Your task to perform on an android device: create a new album in the google photos Image 0: 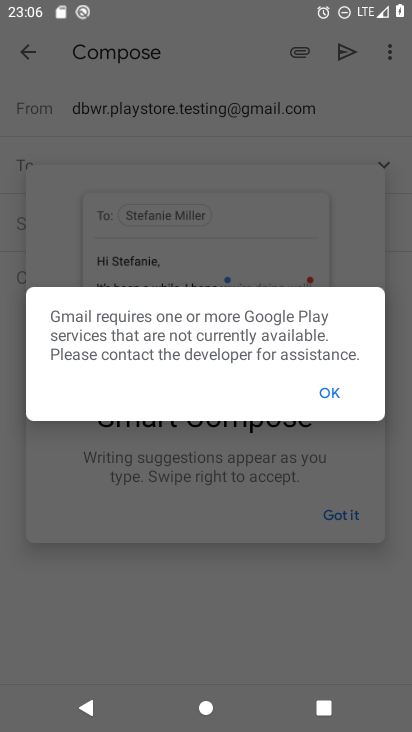
Step 0: press home button
Your task to perform on an android device: create a new album in the google photos Image 1: 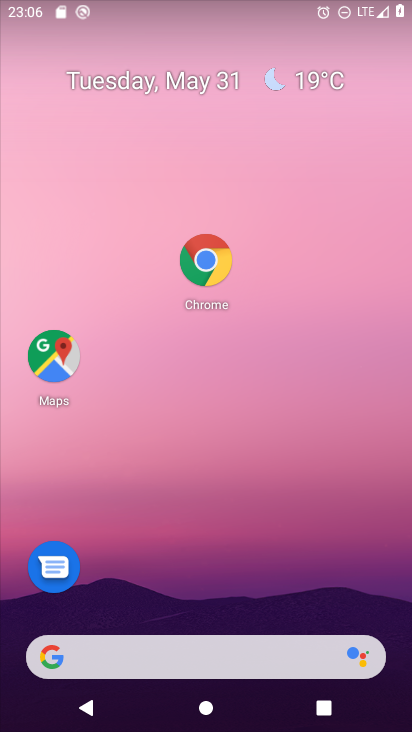
Step 1: drag from (164, 625) to (204, 246)
Your task to perform on an android device: create a new album in the google photos Image 2: 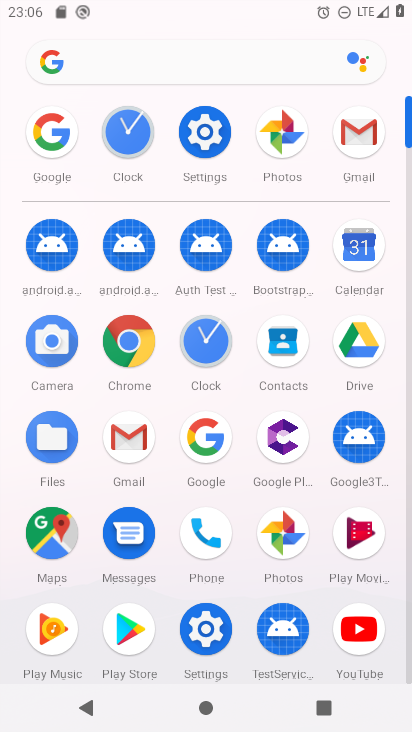
Step 2: click (287, 533)
Your task to perform on an android device: create a new album in the google photos Image 3: 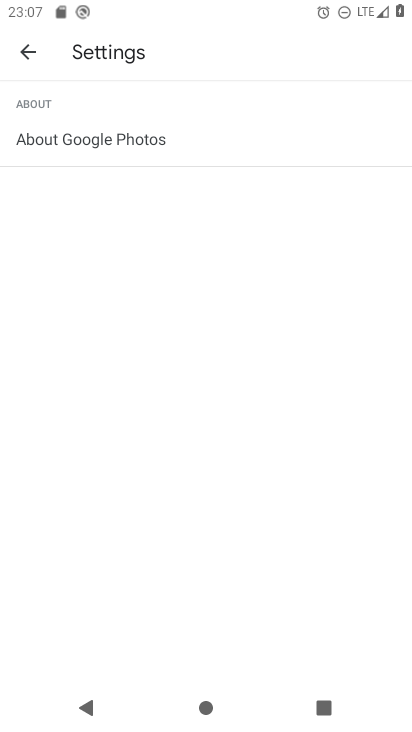
Step 3: click (28, 59)
Your task to perform on an android device: create a new album in the google photos Image 4: 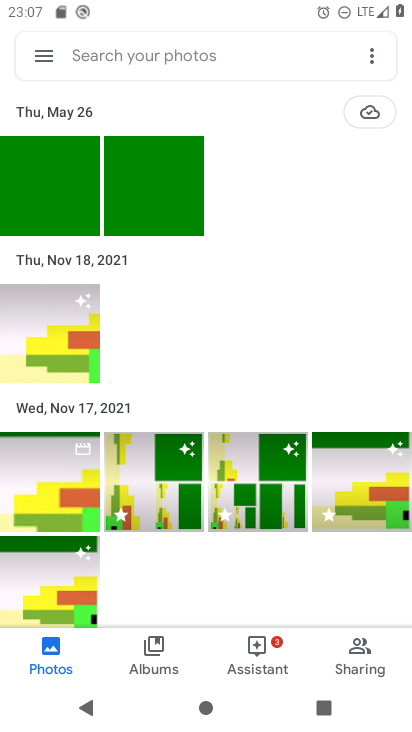
Step 4: click (158, 662)
Your task to perform on an android device: create a new album in the google photos Image 5: 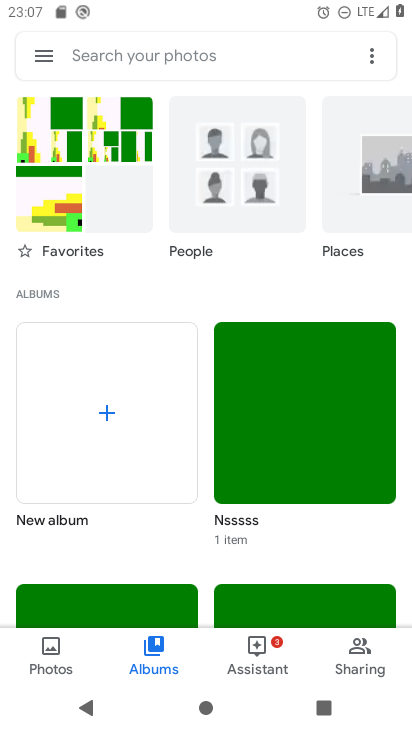
Step 5: click (126, 399)
Your task to perform on an android device: create a new album in the google photos Image 6: 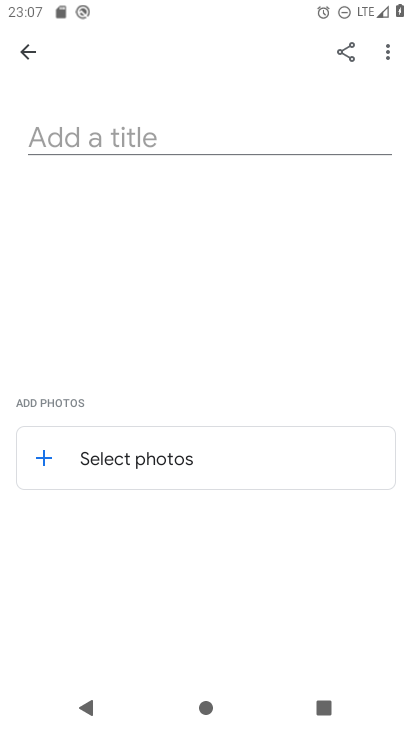
Step 6: type "lipi album"
Your task to perform on an android device: create a new album in the google photos Image 7: 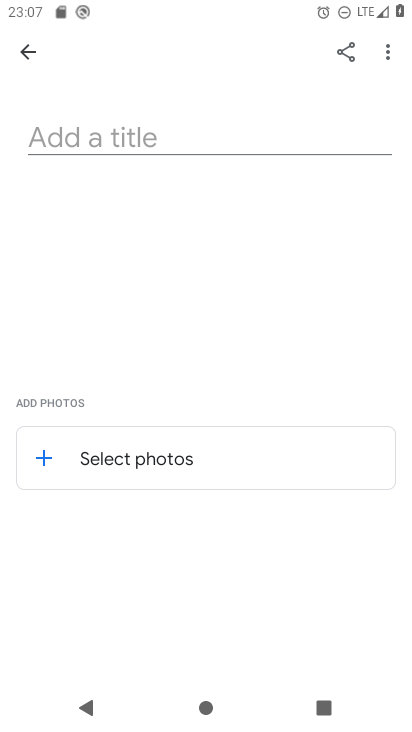
Step 7: click (83, 134)
Your task to perform on an android device: create a new album in the google photos Image 8: 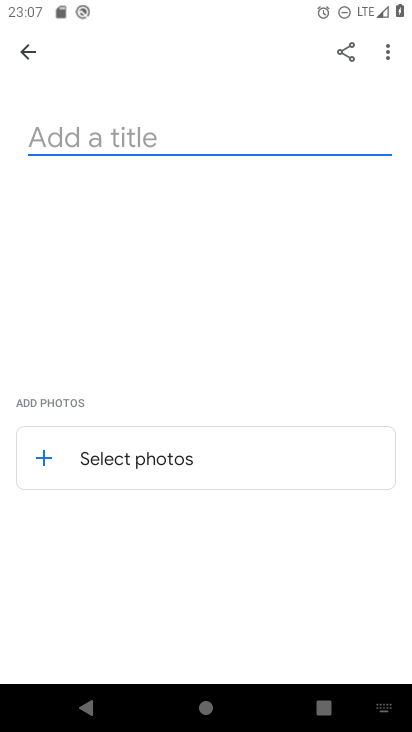
Step 8: type "lipi album"
Your task to perform on an android device: create a new album in the google photos Image 9: 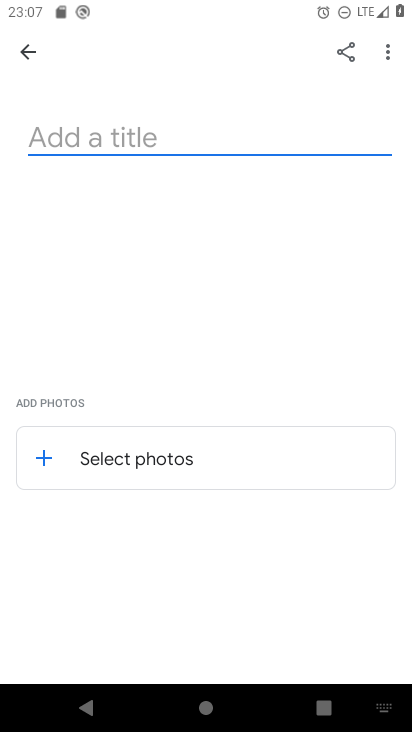
Step 9: click (92, 459)
Your task to perform on an android device: create a new album in the google photos Image 10: 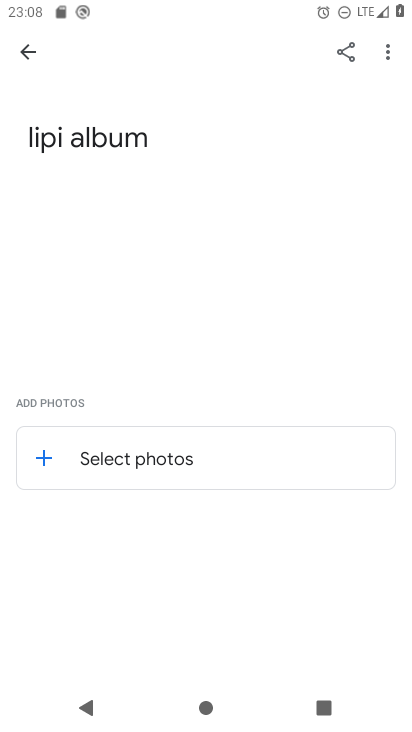
Step 10: click (90, 459)
Your task to perform on an android device: create a new album in the google photos Image 11: 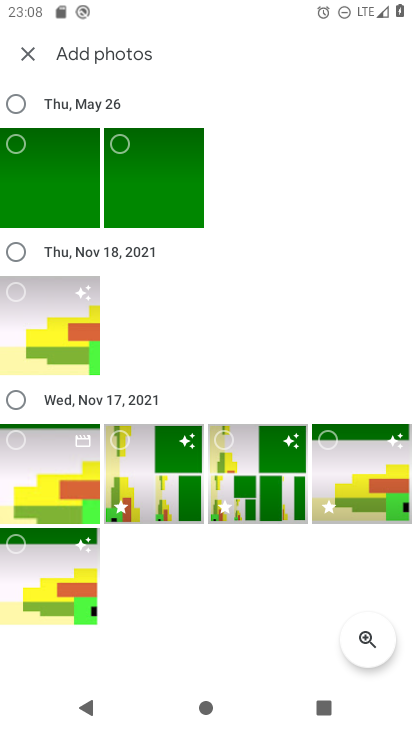
Step 11: click (19, 160)
Your task to perform on an android device: create a new album in the google photos Image 12: 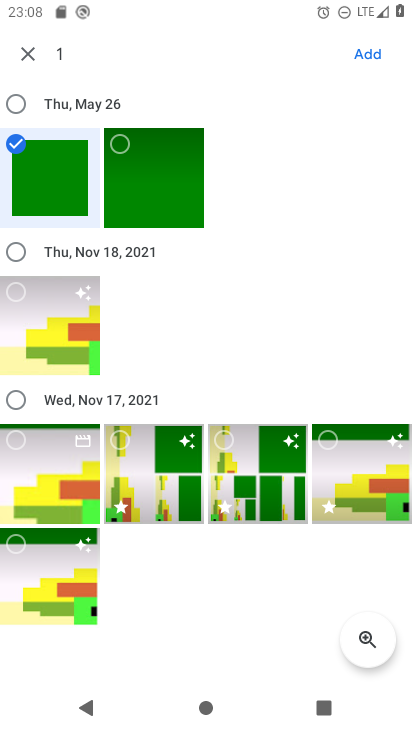
Step 12: click (155, 163)
Your task to perform on an android device: create a new album in the google photos Image 13: 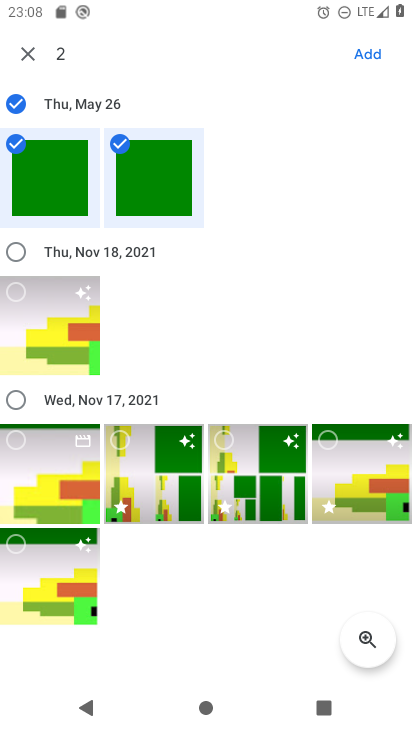
Step 13: click (373, 49)
Your task to perform on an android device: create a new album in the google photos Image 14: 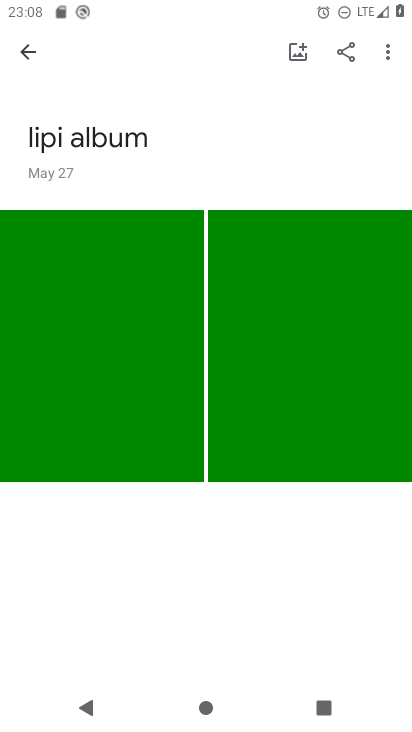
Step 14: task complete